Your task to perform on an android device: check the backup settings in the google photos Image 0: 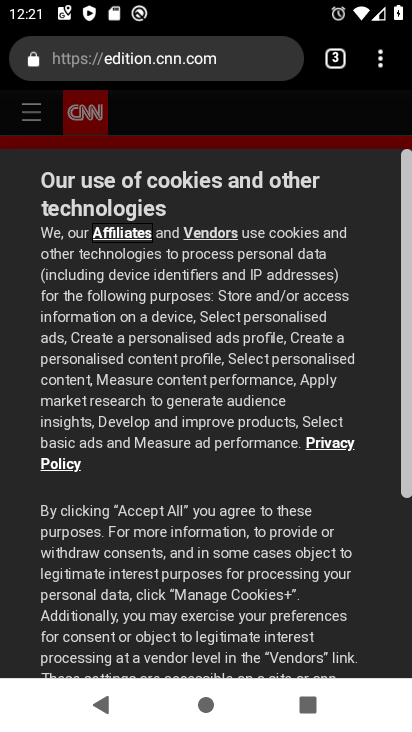
Step 0: press home button
Your task to perform on an android device: check the backup settings in the google photos Image 1: 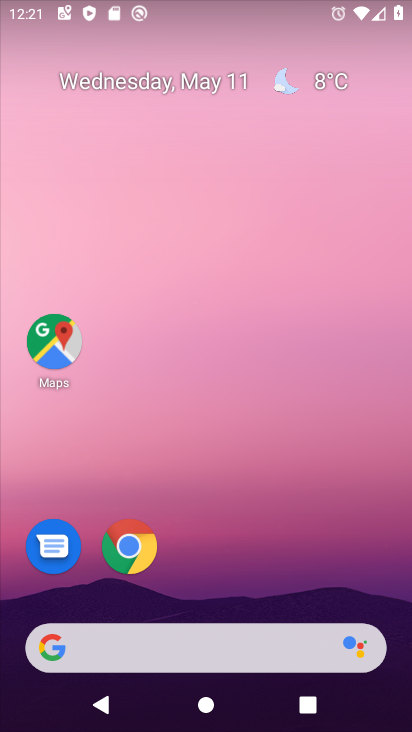
Step 1: drag from (227, 649) to (334, 159)
Your task to perform on an android device: check the backup settings in the google photos Image 2: 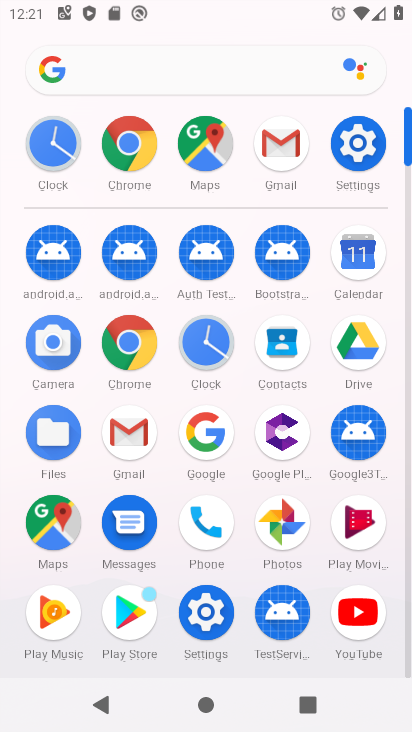
Step 2: click (288, 540)
Your task to perform on an android device: check the backup settings in the google photos Image 3: 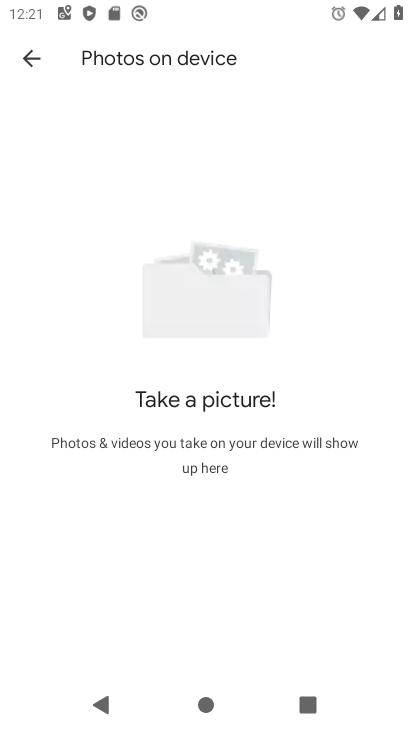
Step 3: click (32, 60)
Your task to perform on an android device: check the backup settings in the google photos Image 4: 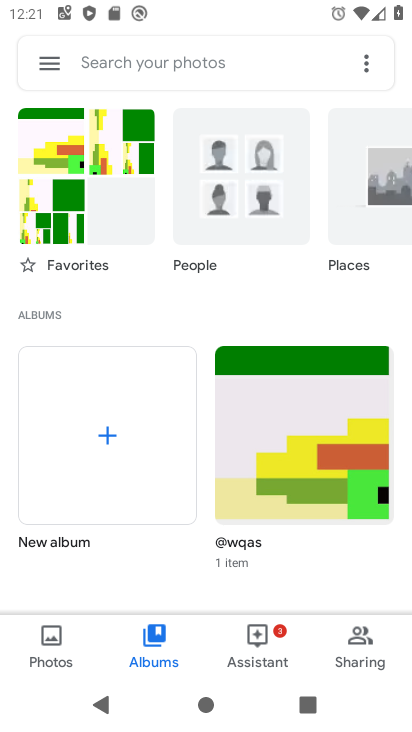
Step 4: click (50, 56)
Your task to perform on an android device: check the backup settings in the google photos Image 5: 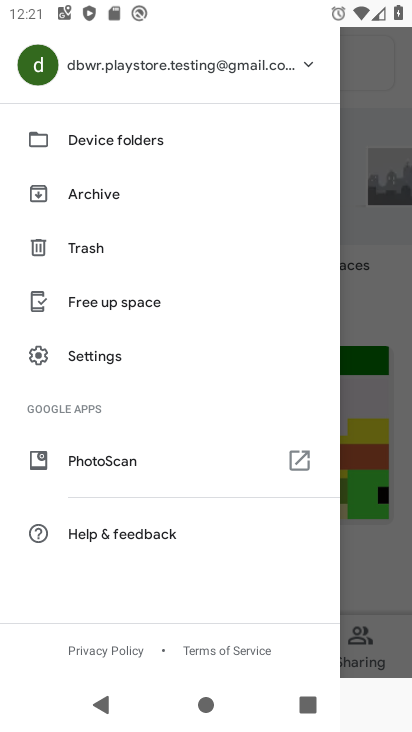
Step 5: click (107, 360)
Your task to perform on an android device: check the backup settings in the google photos Image 6: 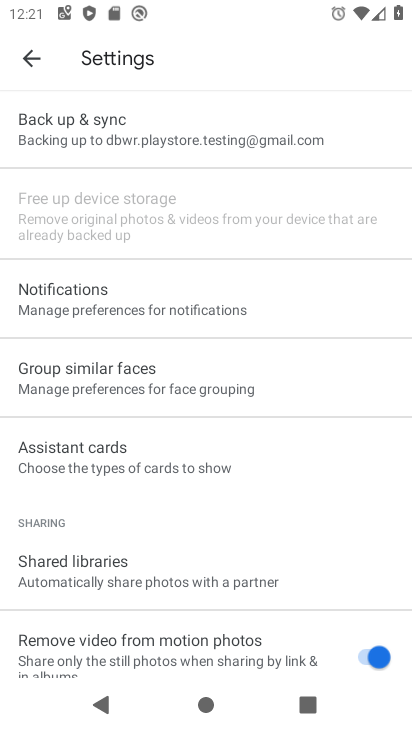
Step 6: click (195, 151)
Your task to perform on an android device: check the backup settings in the google photos Image 7: 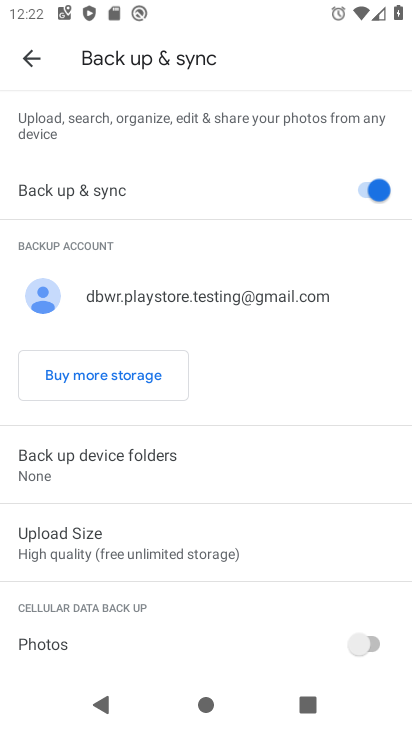
Step 7: task complete